Your task to perform on an android device: Open Yahoo.com Image 0: 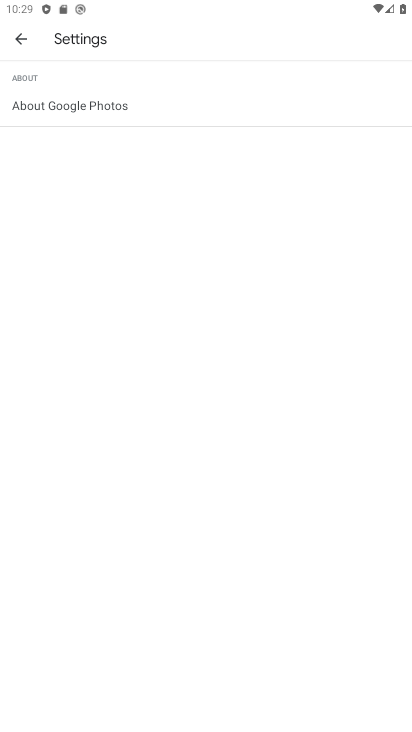
Step 0: press home button
Your task to perform on an android device: Open Yahoo.com Image 1: 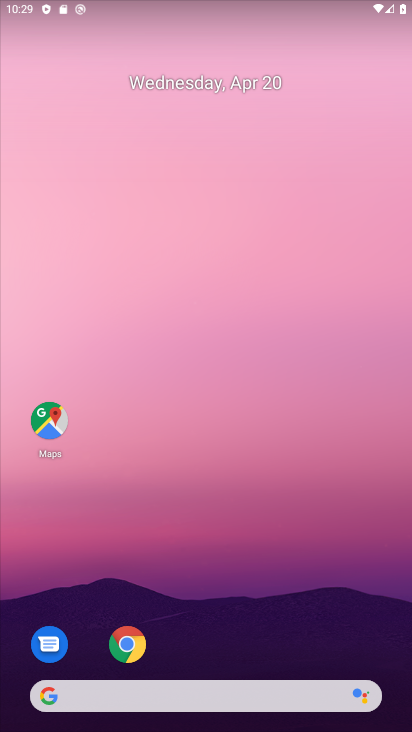
Step 1: click (170, 690)
Your task to perform on an android device: Open Yahoo.com Image 2: 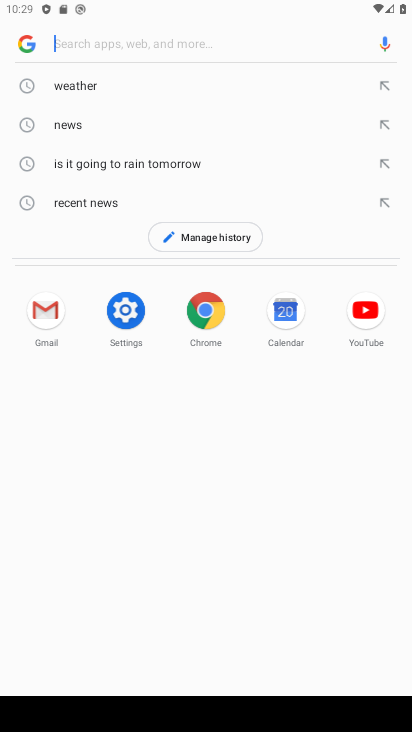
Step 2: type "Yahoo.com"
Your task to perform on an android device: Open Yahoo.com Image 3: 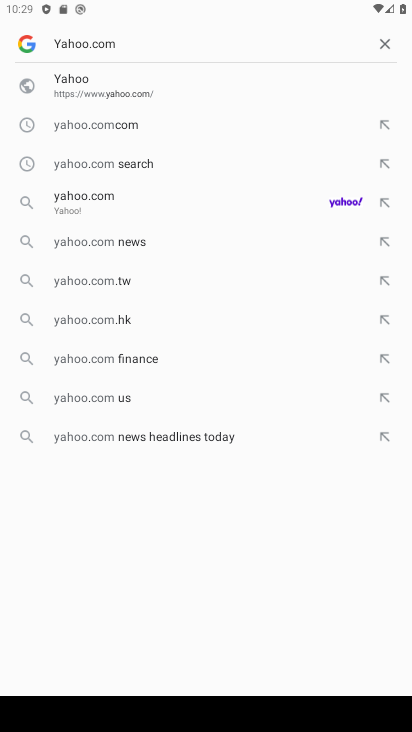
Step 3: click (132, 83)
Your task to perform on an android device: Open Yahoo.com Image 4: 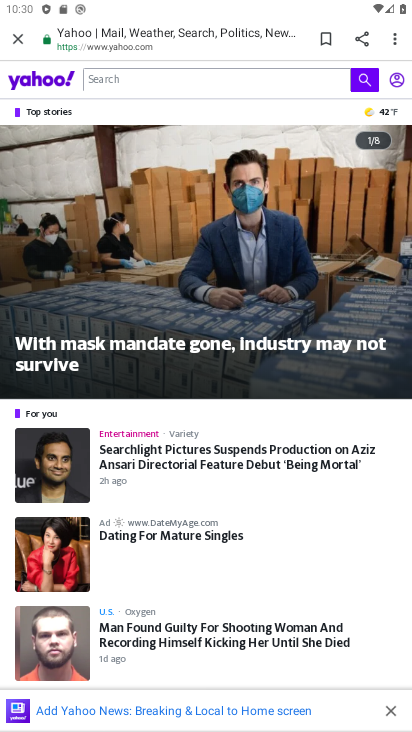
Step 4: task complete